Your task to perform on an android device: turn on priority inbox in the gmail app Image 0: 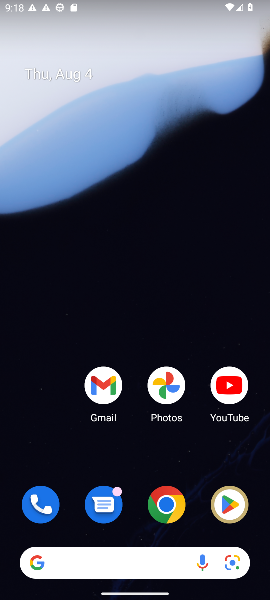
Step 0: drag from (111, 461) to (195, 23)
Your task to perform on an android device: turn on priority inbox in the gmail app Image 1: 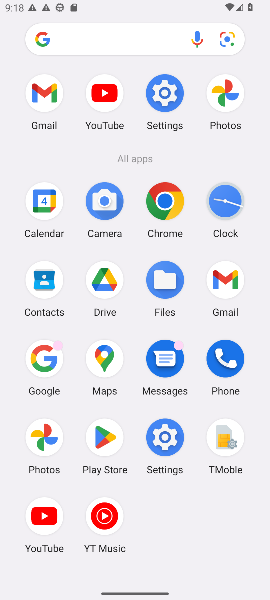
Step 1: click (222, 284)
Your task to perform on an android device: turn on priority inbox in the gmail app Image 2: 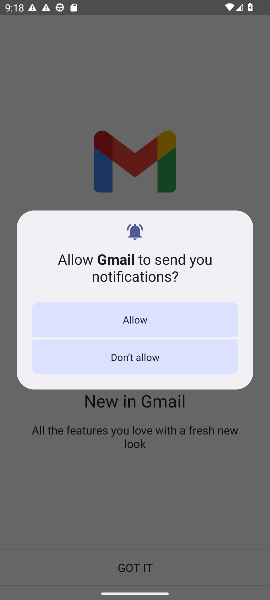
Step 2: click (153, 317)
Your task to perform on an android device: turn on priority inbox in the gmail app Image 3: 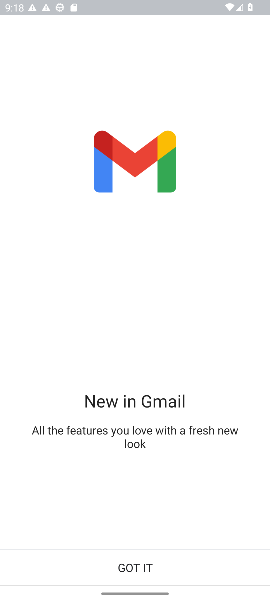
Step 3: click (135, 555)
Your task to perform on an android device: turn on priority inbox in the gmail app Image 4: 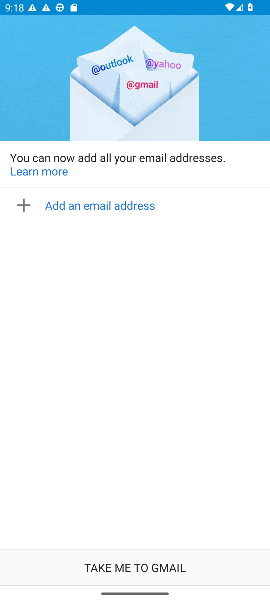
Step 4: click (131, 571)
Your task to perform on an android device: turn on priority inbox in the gmail app Image 5: 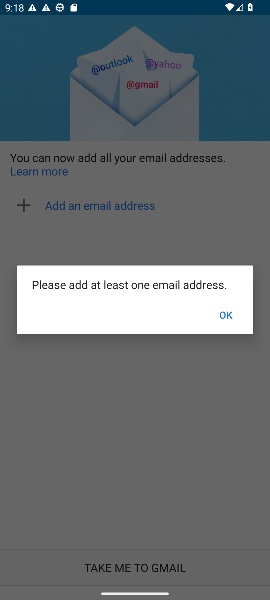
Step 5: click (234, 316)
Your task to perform on an android device: turn on priority inbox in the gmail app Image 6: 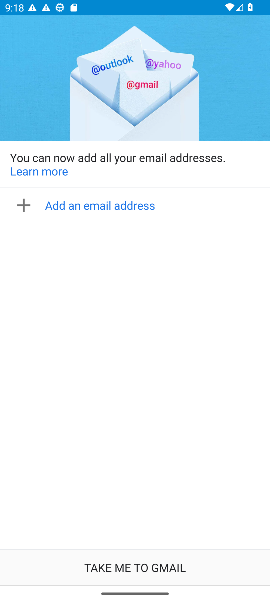
Step 6: task complete